Your task to perform on an android device: Search for a new mascara on Sephora Image 0: 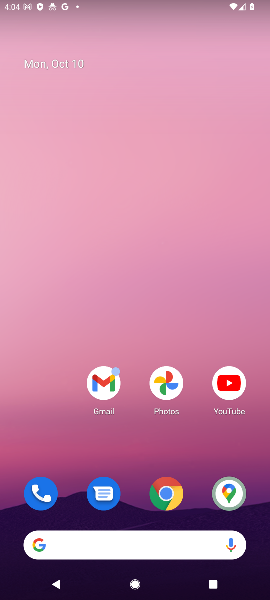
Step 0: click (158, 544)
Your task to perform on an android device: Search for a new mascara on Sephora Image 1: 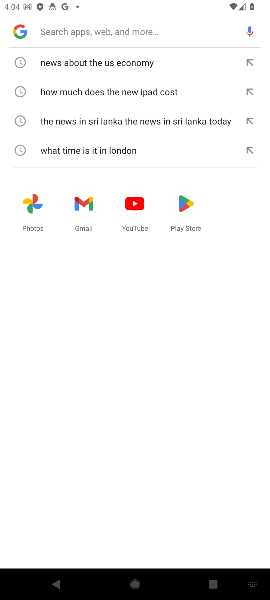
Step 1: type "new mascara on Sephora"
Your task to perform on an android device: Search for a new mascara on Sephora Image 2: 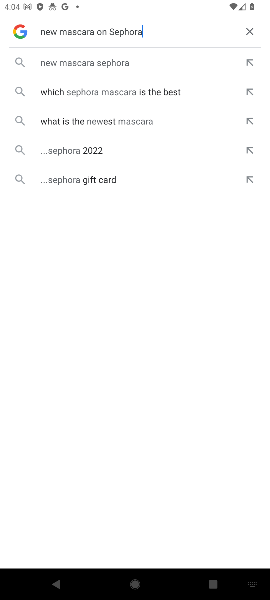
Step 2: click (133, 55)
Your task to perform on an android device: Search for a new mascara on Sephora Image 3: 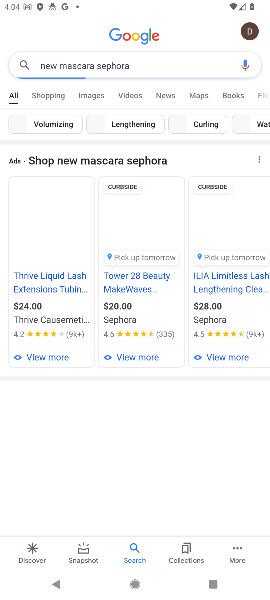
Step 3: task complete